Your task to perform on an android device: toggle javascript in the chrome app Image 0: 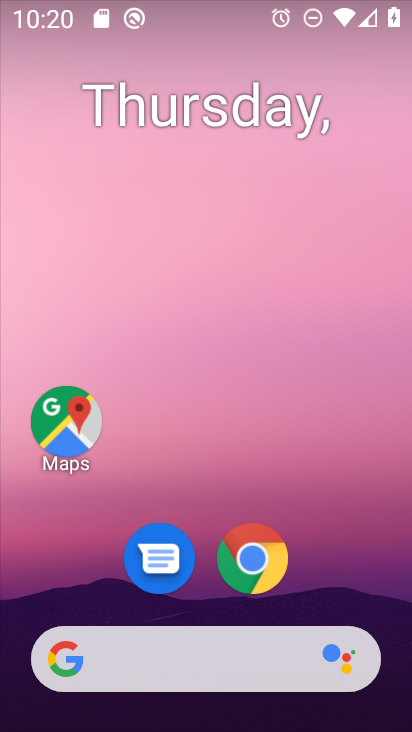
Step 0: click (257, 553)
Your task to perform on an android device: toggle javascript in the chrome app Image 1: 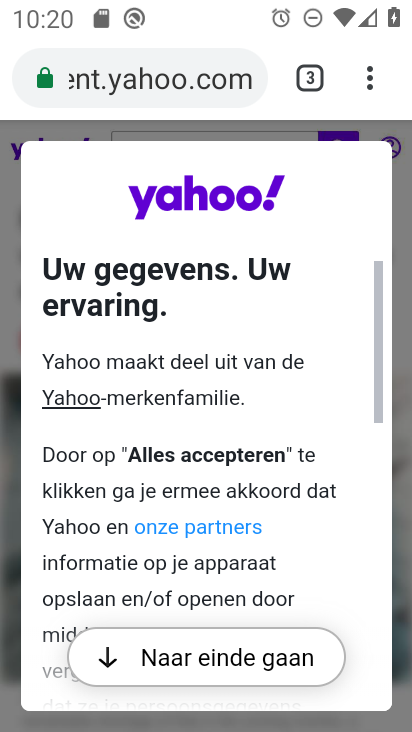
Step 1: click (370, 82)
Your task to perform on an android device: toggle javascript in the chrome app Image 2: 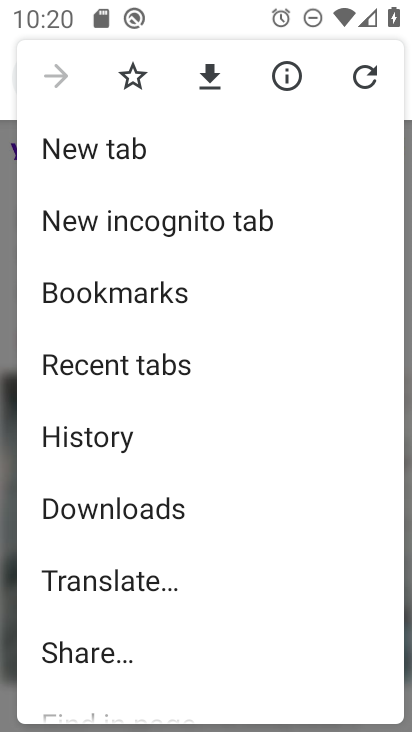
Step 2: drag from (203, 561) to (269, 242)
Your task to perform on an android device: toggle javascript in the chrome app Image 3: 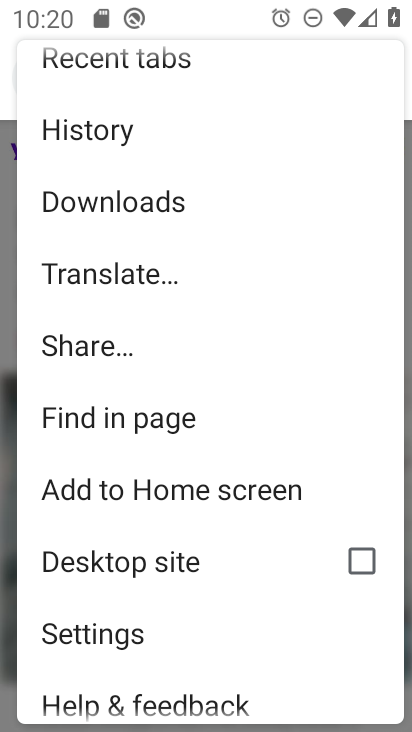
Step 3: click (95, 644)
Your task to perform on an android device: toggle javascript in the chrome app Image 4: 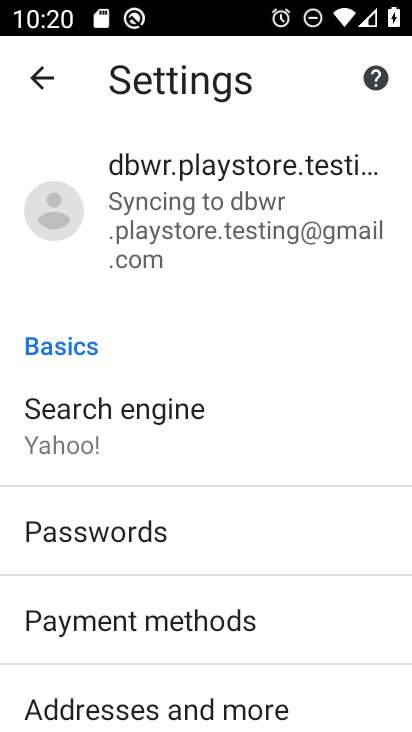
Step 4: drag from (309, 662) to (304, 209)
Your task to perform on an android device: toggle javascript in the chrome app Image 5: 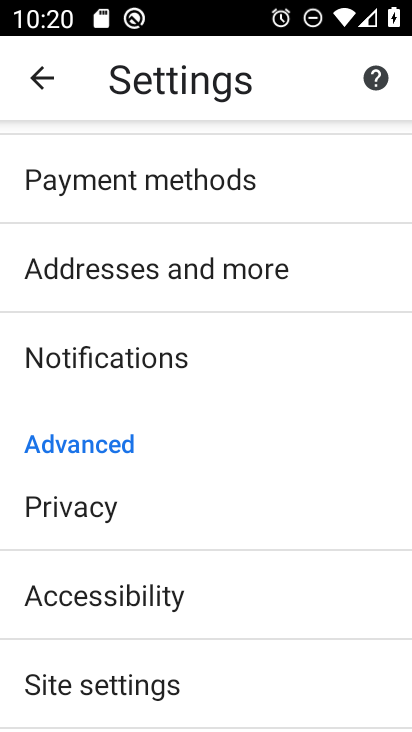
Step 5: drag from (198, 650) to (282, 221)
Your task to perform on an android device: toggle javascript in the chrome app Image 6: 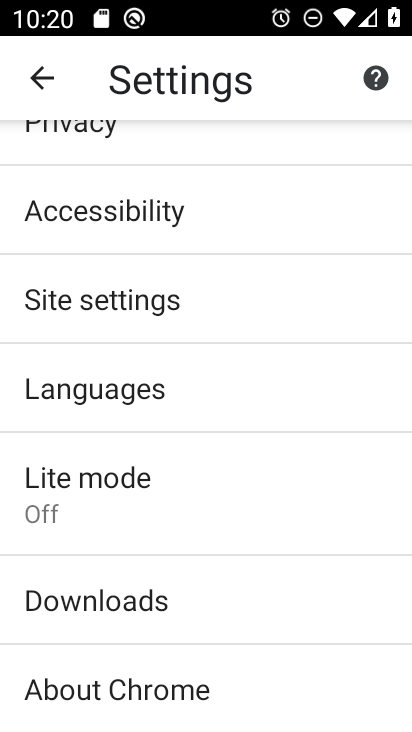
Step 6: click (72, 298)
Your task to perform on an android device: toggle javascript in the chrome app Image 7: 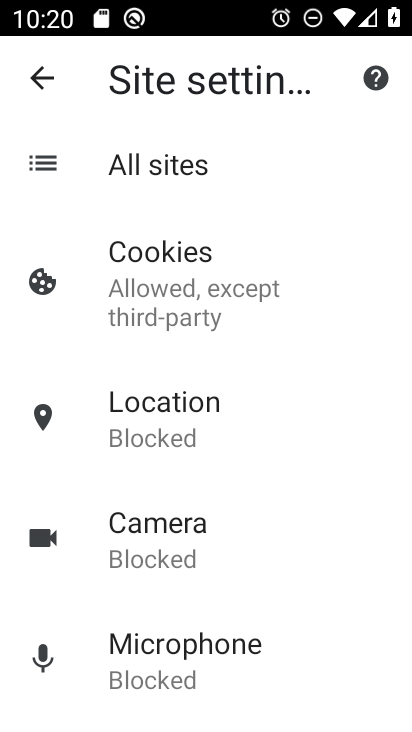
Step 7: drag from (291, 641) to (291, 195)
Your task to perform on an android device: toggle javascript in the chrome app Image 8: 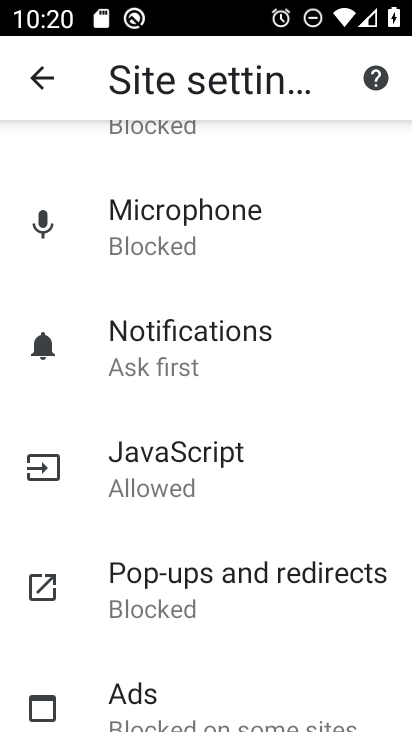
Step 8: click (135, 487)
Your task to perform on an android device: toggle javascript in the chrome app Image 9: 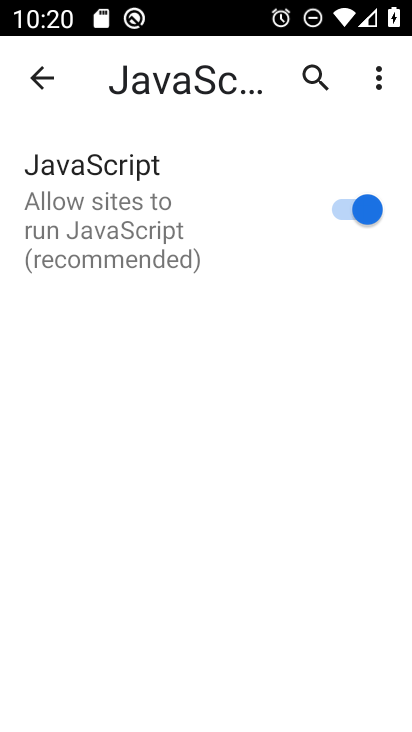
Step 9: click (349, 210)
Your task to perform on an android device: toggle javascript in the chrome app Image 10: 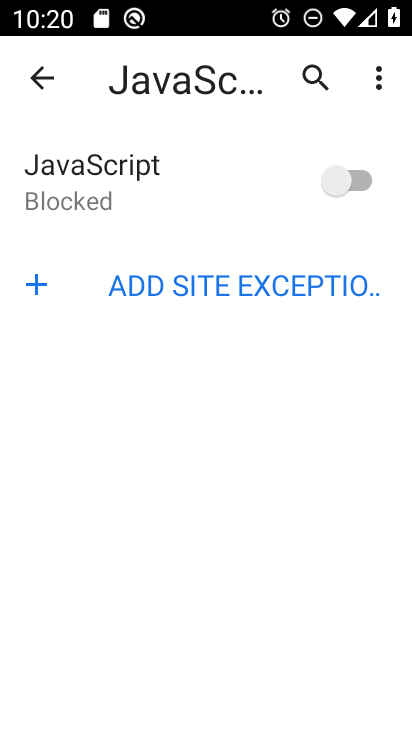
Step 10: task complete